Your task to perform on an android device: remove spam from my inbox in the gmail app Image 0: 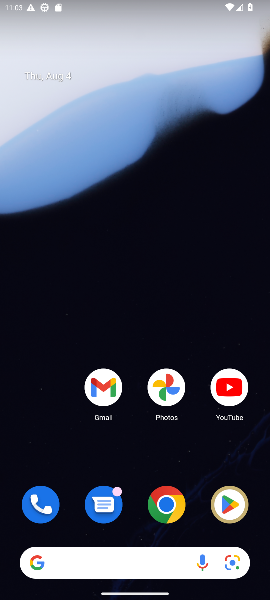
Step 0: click (101, 390)
Your task to perform on an android device: remove spam from my inbox in the gmail app Image 1: 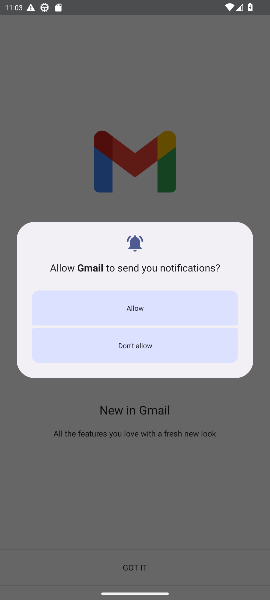
Step 1: click (212, 306)
Your task to perform on an android device: remove spam from my inbox in the gmail app Image 2: 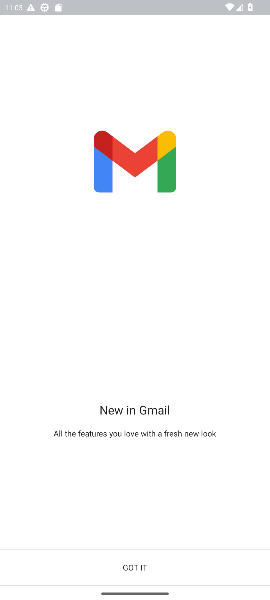
Step 2: click (149, 576)
Your task to perform on an android device: remove spam from my inbox in the gmail app Image 3: 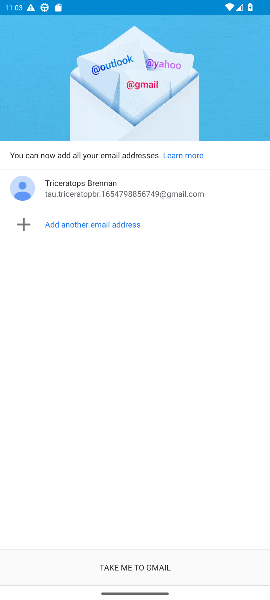
Step 3: click (118, 560)
Your task to perform on an android device: remove spam from my inbox in the gmail app Image 4: 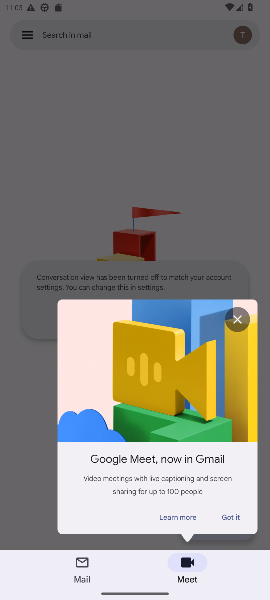
Step 4: click (225, 515)
Your task to perform on an android device: remove spam from my inbox in the gmail app Image 5: 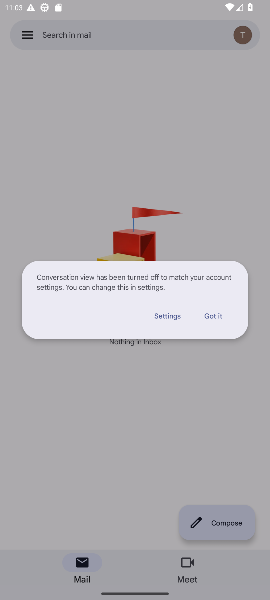
Step 5: click (217, 314)
Your task to perform on an android device: remove spam from my inbox in the gmail app Image 6: 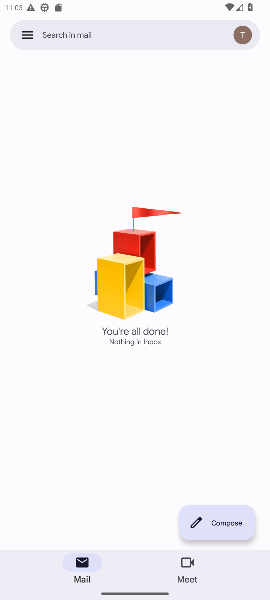
Step 6: click (23, 36)
Your task to perform on an android device: remove spam from my inbox in the gmail app Image 7: 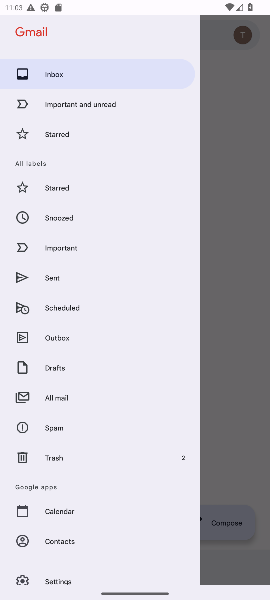
Step 7: click (64, 427)
Your task to perform on an android device: remove spam from my inbox in the gmail app Image 8: 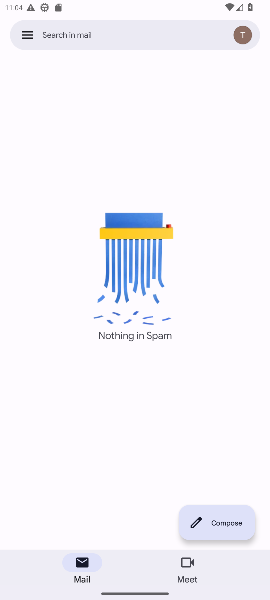
Step 8: task complete